Your task to perform on an android device: Do I have any events tomorrow? Image 0: 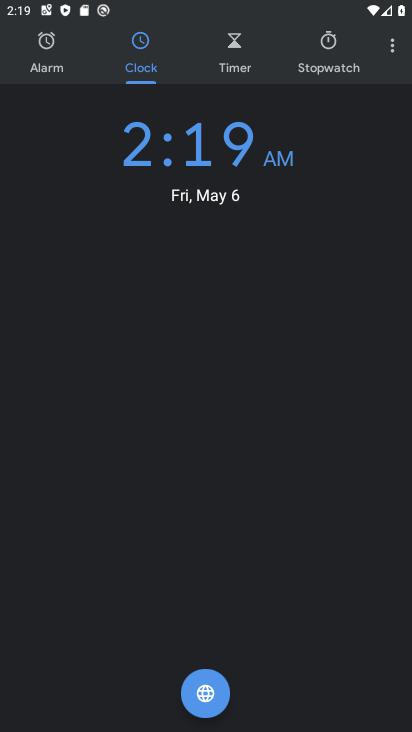
Step 0: press home button
Your task to perform on an android device: Do I have any events tomorrow? Image 1: 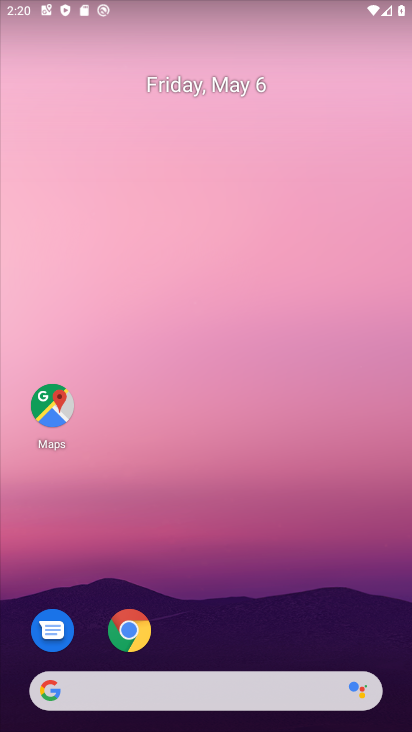
Step 1: drag from (178, 683) to (165, 112)
Your task to perform on an android device: Do I have any events tomorrow? Image 2: 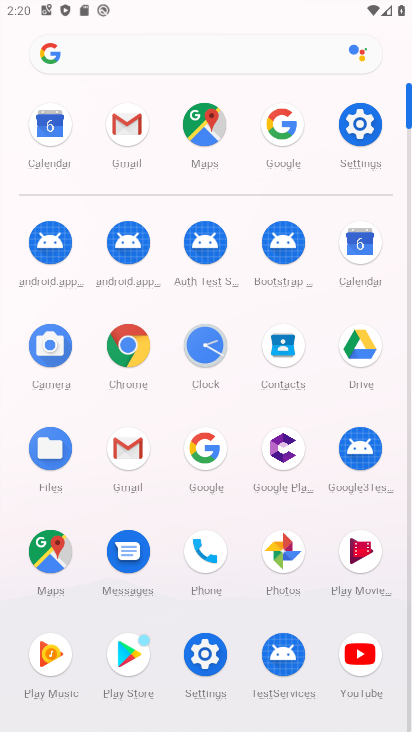
Step 2: click (355, 264)
Your task to perform on an android device: Do I have any events tomorrow? Image 3: 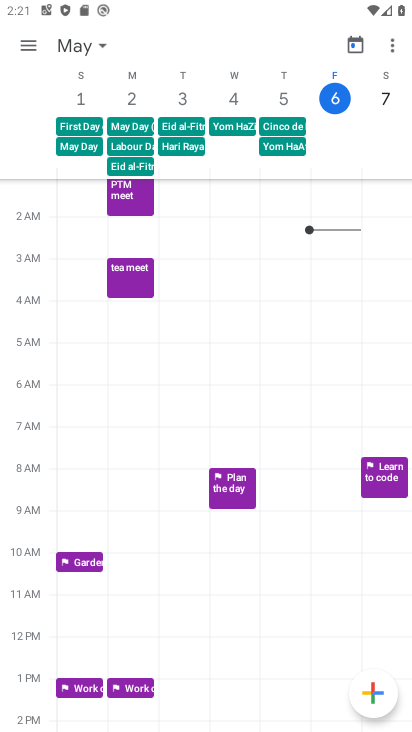
Step 3: task complete